Your task to perform on an android device: add a contact Image 0: 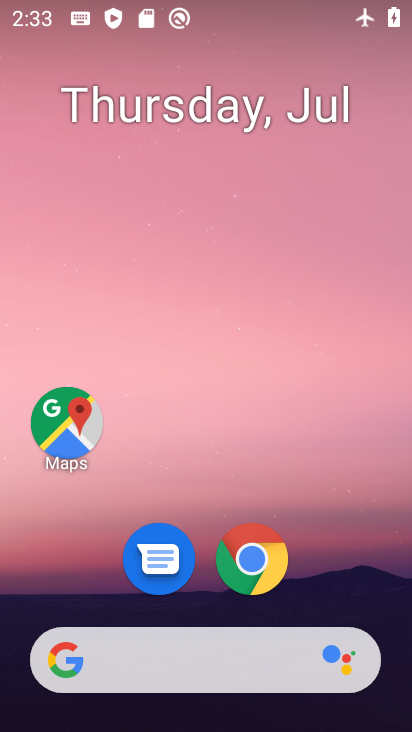
Step 0: drag from (209, 412) to (269, 206)
Your task to perform on an android device: add a contact Image 1: 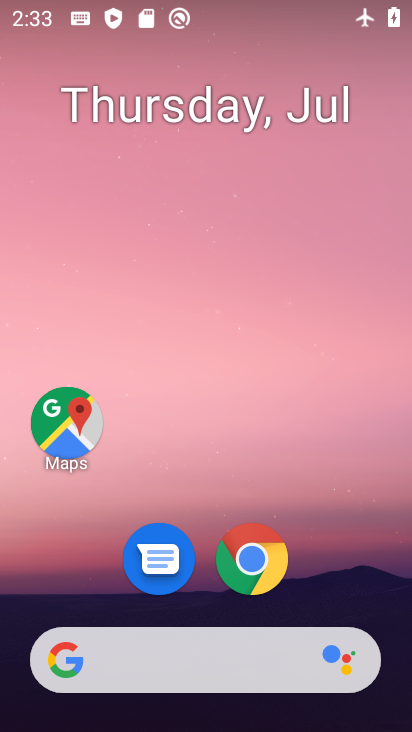
Step 1: drag from (246, 676) to (297, 231)
Your task to perform on an android device: add a contact Image 2: 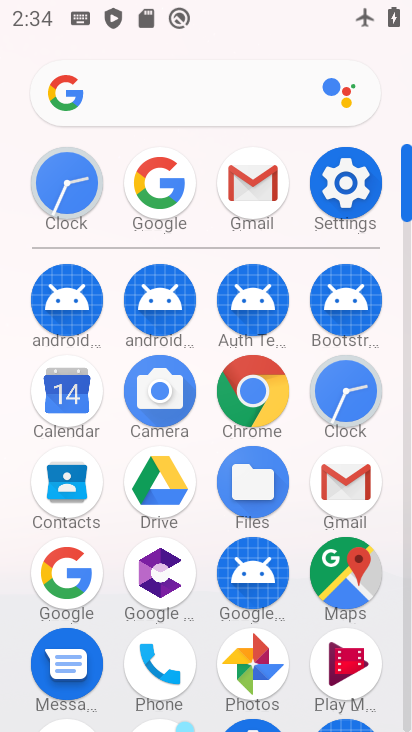
Step 2: click (72, 487)
Your task to perform on an android device: add a contact Image 3: 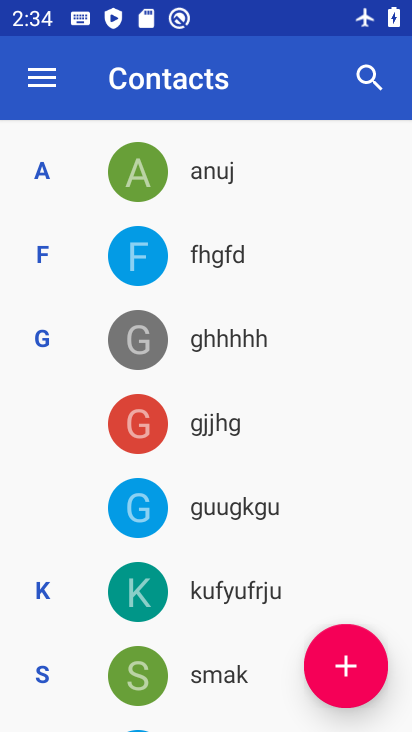
Step 3: click (335, 664)
Your task to perform on an android device: add a contact Image 4: 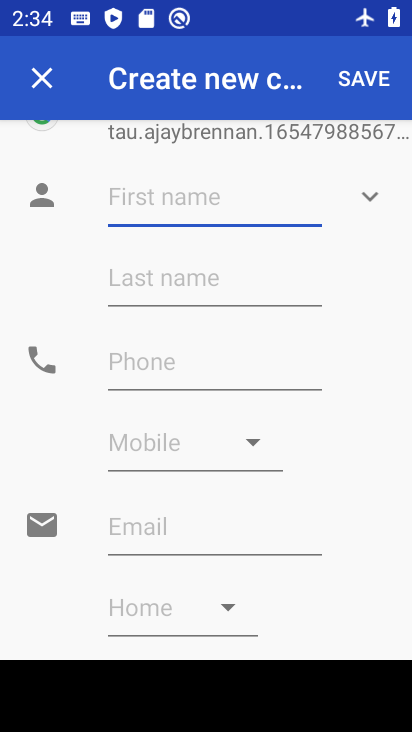
Step 4: type "nlnnk"
Your task to perform on an android device: add a contact Image 5: 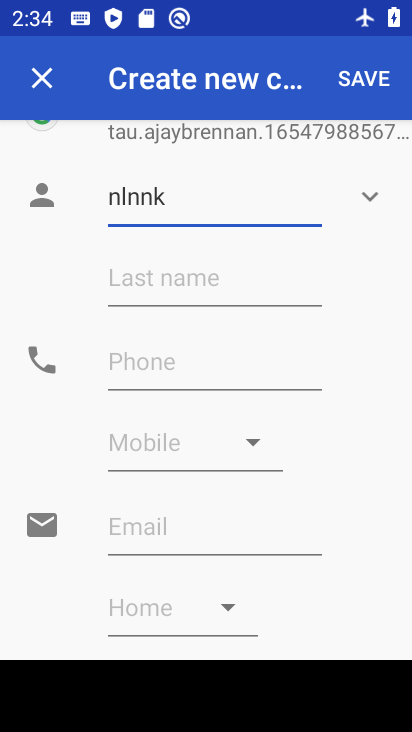
Step 5: click (236, 373)
Your task to perform on an android device: add a contact Image 6: 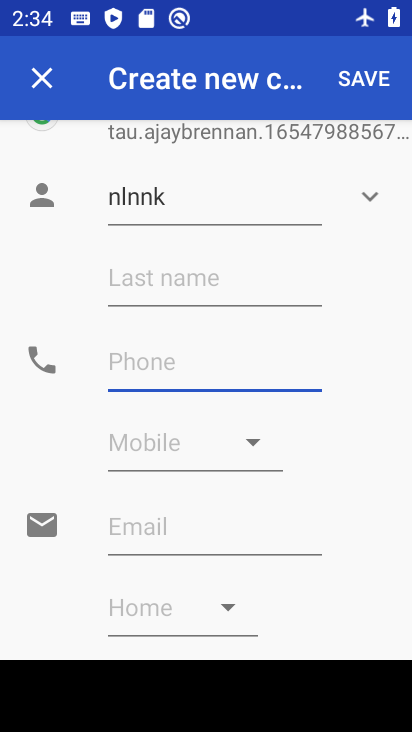
Step 6: type "987678"
Your task to perform on an android device: add a contact Image 7: 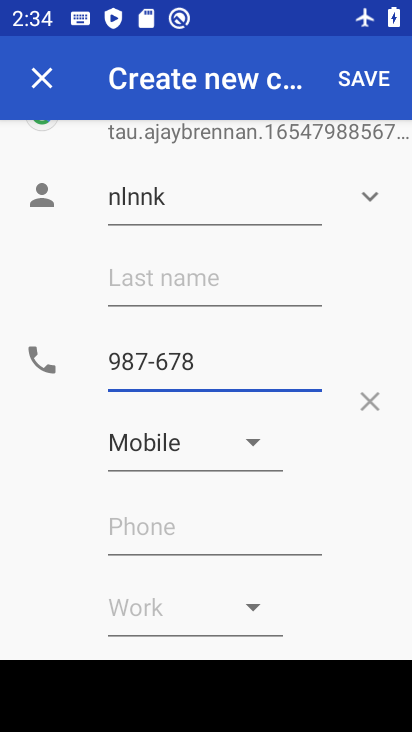
Step 7: click (359, 84)
Your task to perform on an android device: add a contact Image 8: 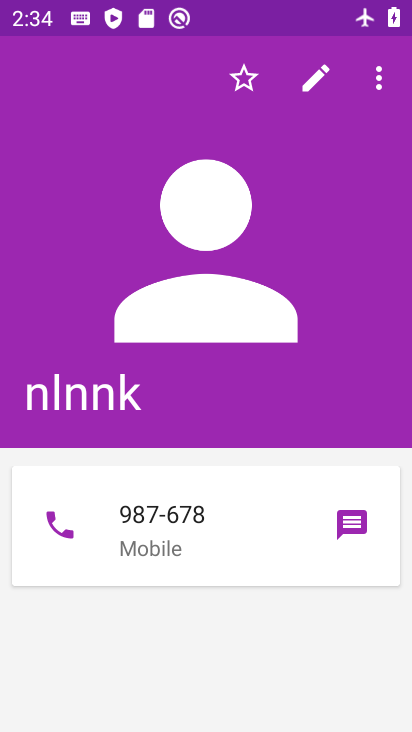
Step 8: task complete